Your task to perform on an android device: Open the calendar app, open the side menu, and click the "Day" option Image 0: 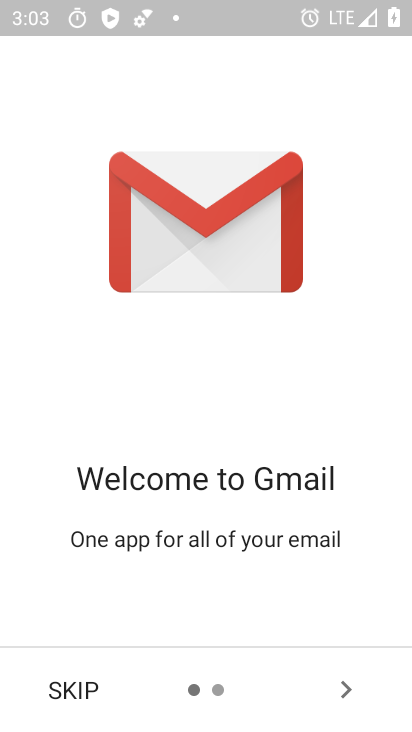
Step 0: press home button
Your task to perform on an android device: Open the calendar app, open the side menu, and click the "Day" option Image 1: 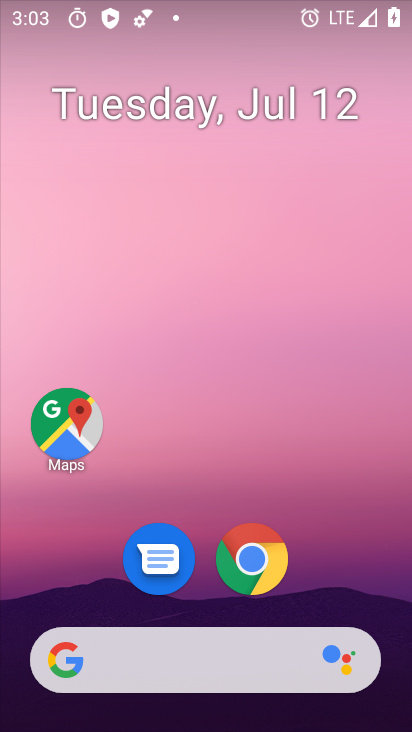
Step 1: drag from (359, 553) to (366, 147)
Your task to perform on an android device: Open the calendar app, open the side menu, and click the "Day" option Image 2: 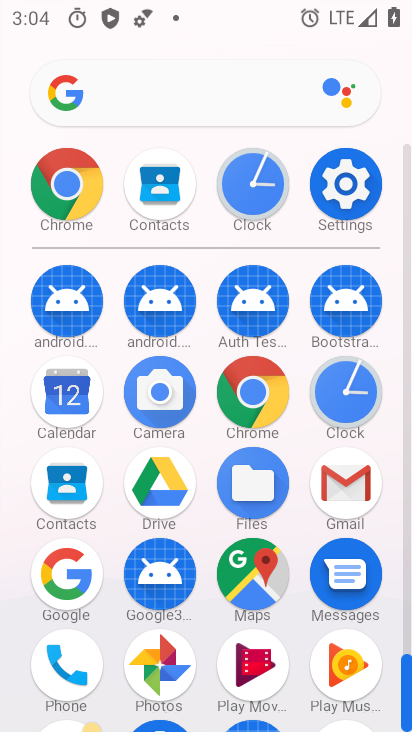
Step 2: click (63, 402)
Your task to perform on an android device: Open the calendar app, open the side menu, and click the "Day" option Image 3: 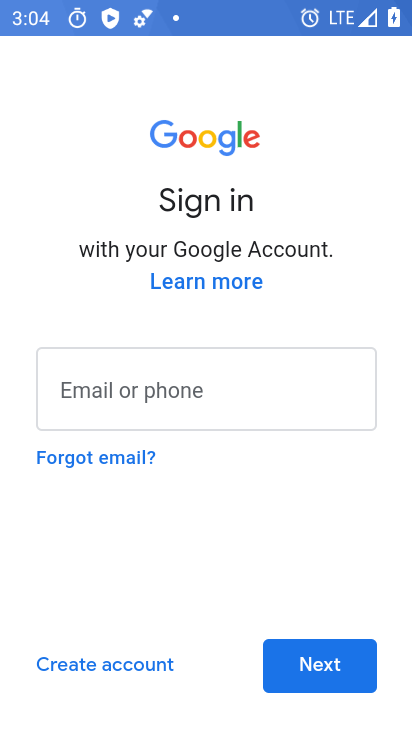
Step 3: task complete